Your task to perform on an android device: Set the phone to "Do not disturb". Image 0: 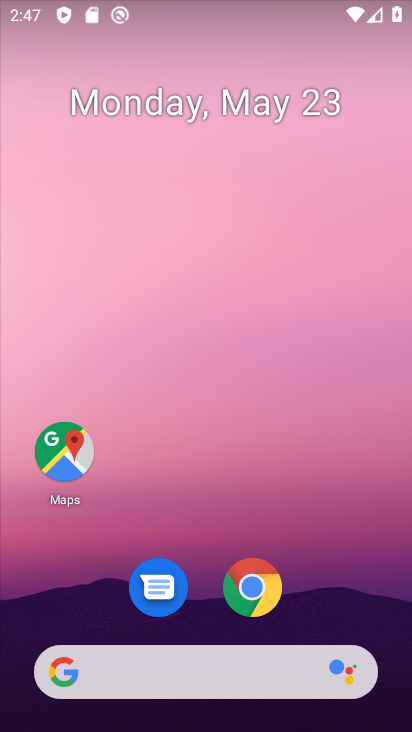
Step 0: drag from (195, 5) to (173, 344)
Your task to perform on an android device: Set the phone to "Do not disturb". Image 1: 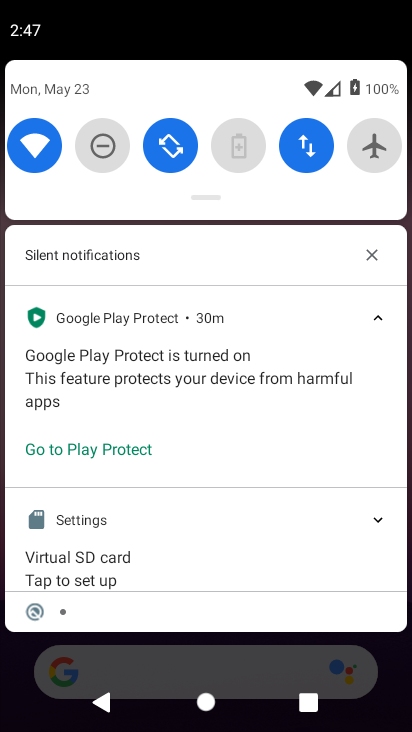
Step 1: click (94, 155)
Your task to perform on an android device: Set the phone to "Do not disturb". Image 2: 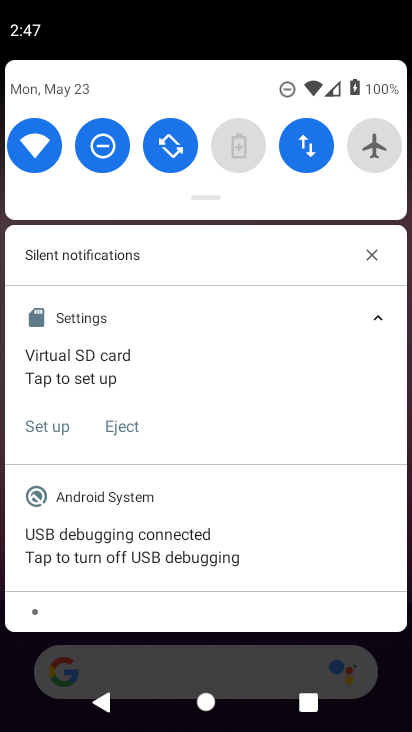
Step 2: task complete